Your task to perform on an android device: all mails in gmail Image 0: 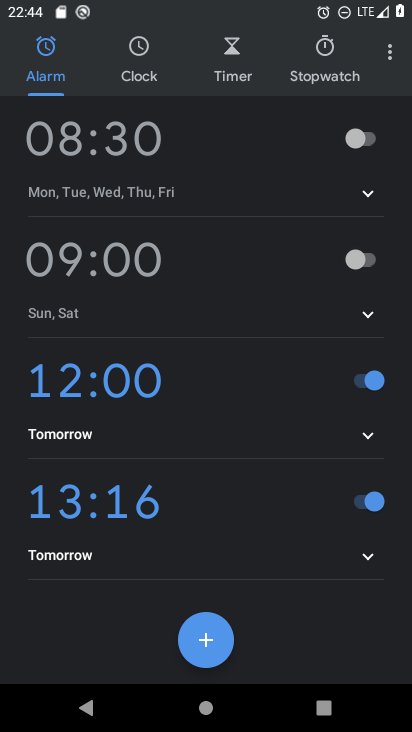
Step 0: press home button
Your task to perform on an android device: all mails in gmail Image 1: 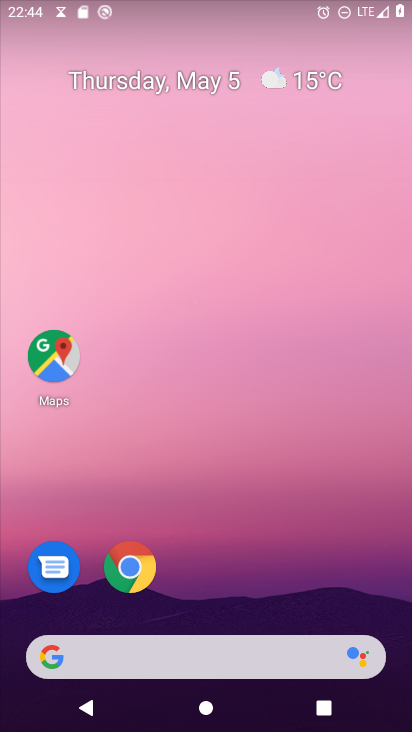
Step 1: drag from (221, 726) to (207, 57)
Your task to perform on an android device: all mails in gmail Image 2: 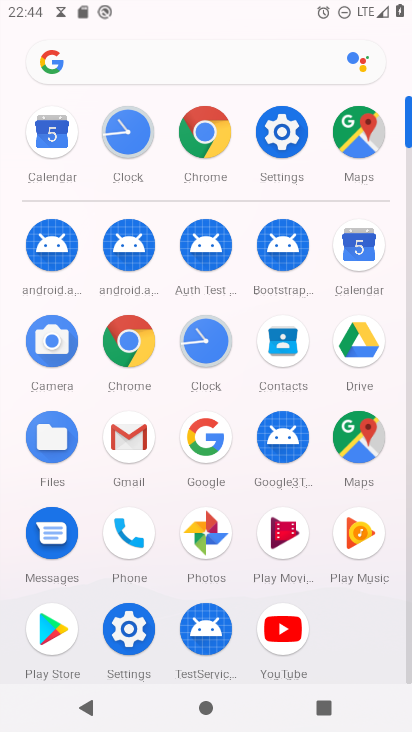
Step 2: click (126, 429)
Your task to perform on an android device: all mails in gmail Image 3: 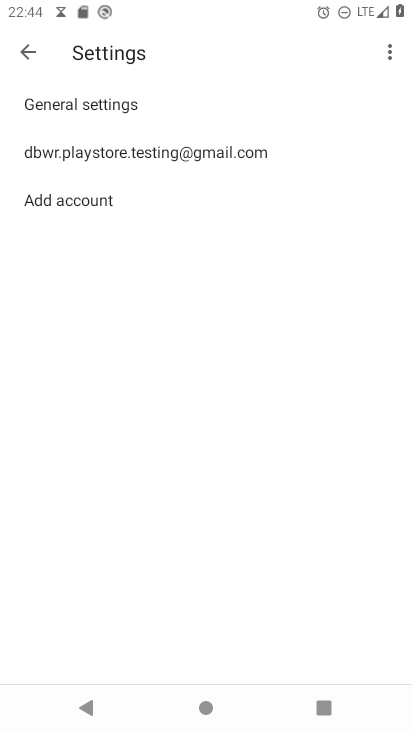
Step 3: click (28, 55)
Your task to perform on an android device: all mails in gmail Image 4: 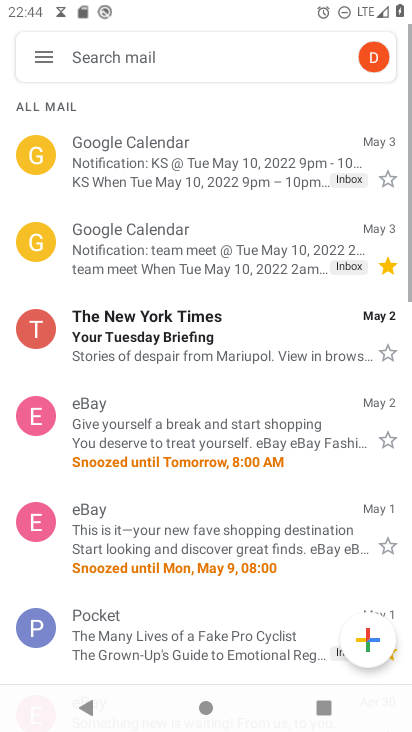
Step 4: click (44, 58)
Your task to perform on an android device: all mails in gmail Image 5: 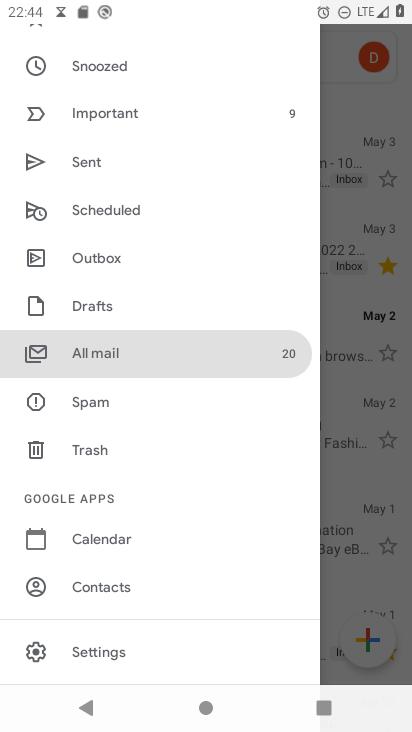
Step 5: click (119, 358)
Your task to perform on an android device: all mails in gmail Image 6: 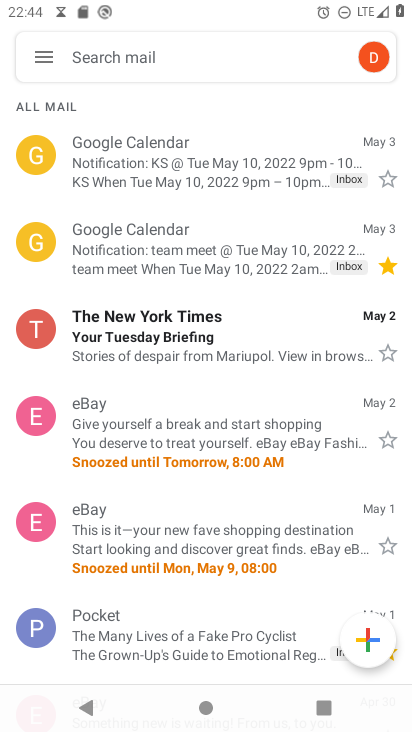
Step 6: task complete